Your task to perform on an android device: Go to display settings Image 0: 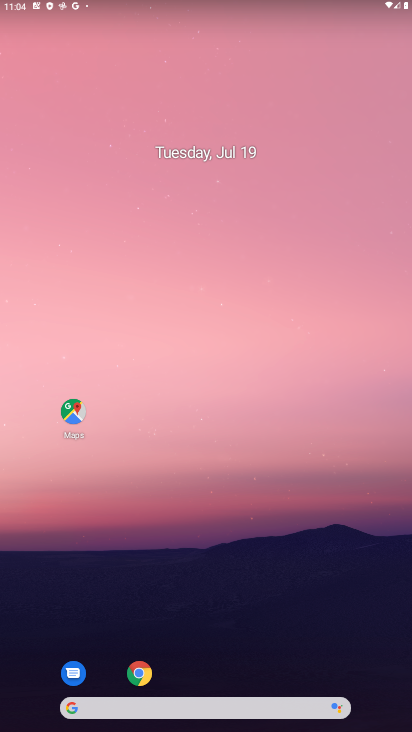
Step 0: drag from (214, 671) to (305, 121)
Your task to perform on an android device: Go to display settings Image 1: 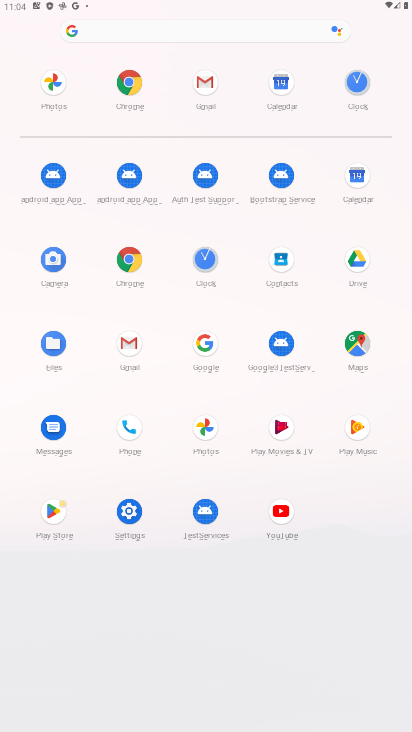
Step 1: click (131, 511)
Your task to perform on an android device: Go to display settings Image 2: 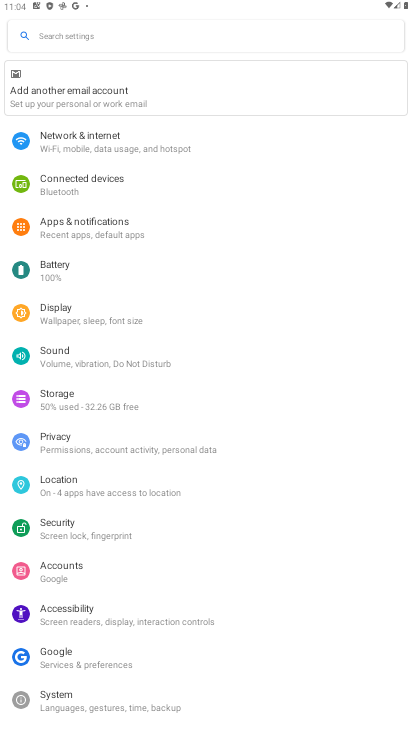
Step 2: click (106, 309)
Your task to perform on an android device: Go to display settings Image 3: 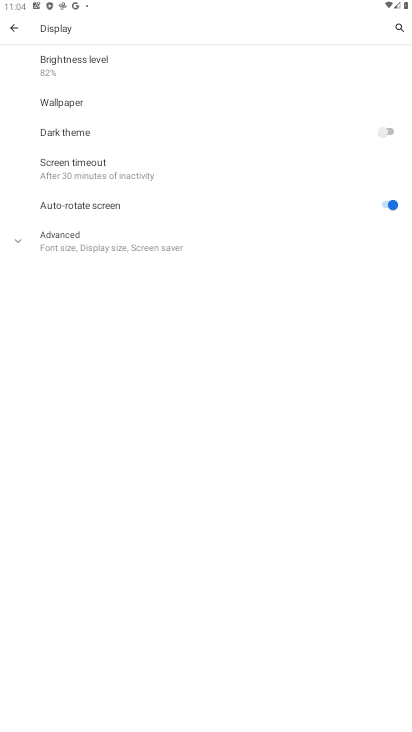
Step 3: task complete